Your task to perform on an android device: turn off notifications in google photos Image 0: 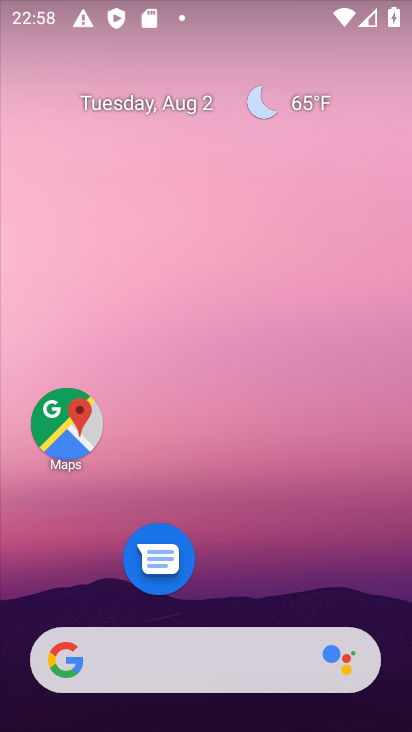
Step 0: drag from (173, 634) to (154, 117)
Your task to perform on an android device: turn off notifications in google photos Image 1: 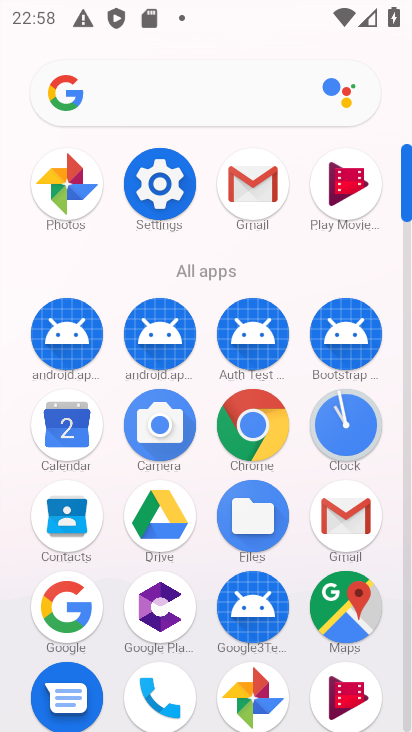
Step 1: click (263, 682)
Your task to perform on an android device: turn off notifications in google photos Image 2: 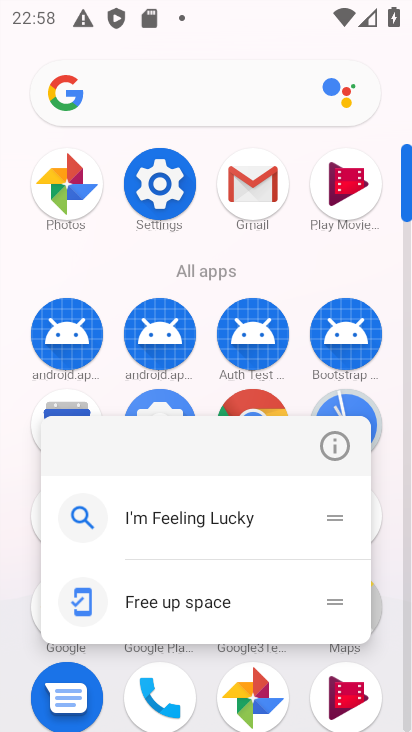
Step 2: click (249, 699)
Your task to perform on an android device: turn off notifications in google photos Image 3: 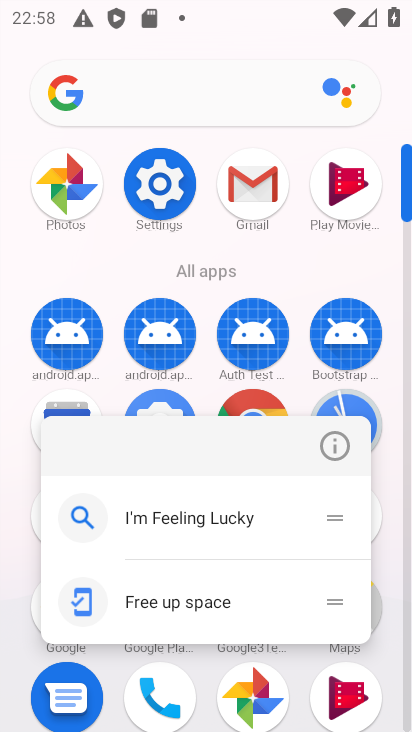
Step 3: click (248, 700)
Your task to perform on an android device: turn off notifications in google photos Image 4: 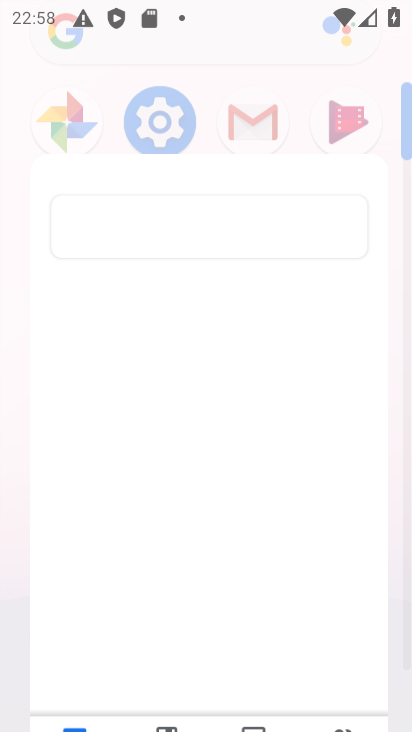
Step 4: click (248, 701)
Your task to perform on an android device: turn off notifications in google photos Image 5: 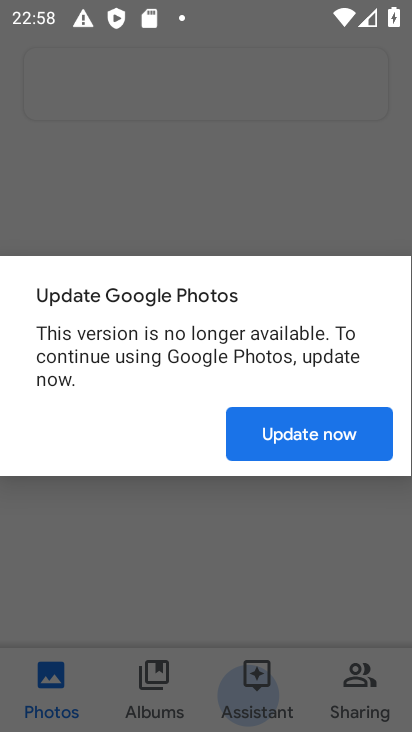
Step 5: click (249, 692)
Your task to perform on an android device: turn off notifications in google photos Image 6: 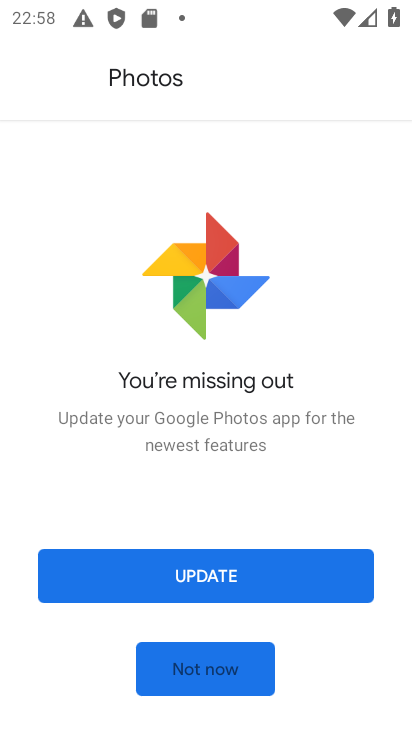
Step 6: click (203, 690)
Your task to perform on an android device: turn off notifications in google photos Image 7: 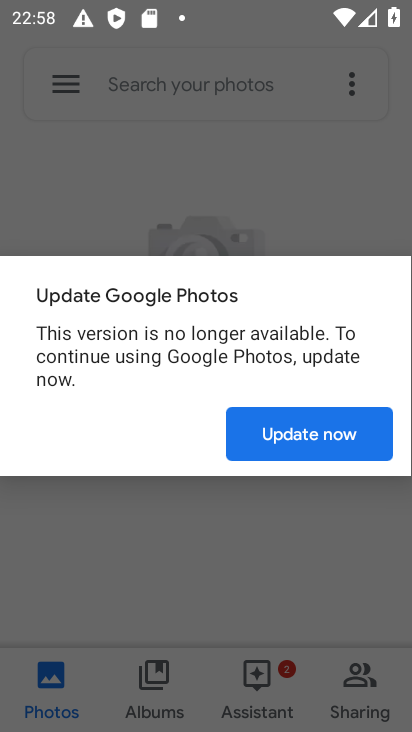
Step 7: click (262, 173)
Your task to perform on an android device: turn off notifications in google photos Image 8: 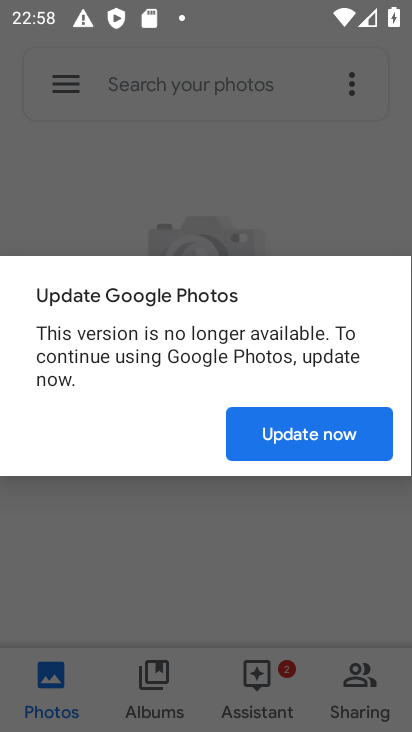
Step 8: click (262, 173)
Your task to perform on an android device: turn off notifications in google photos Image 9: 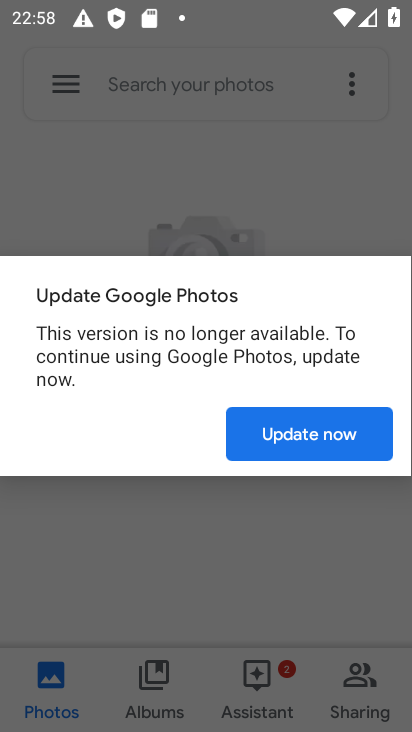
Step 9: click (262, 173)
Your task to perform on an android device: turn off notifications in google photos Image 10: 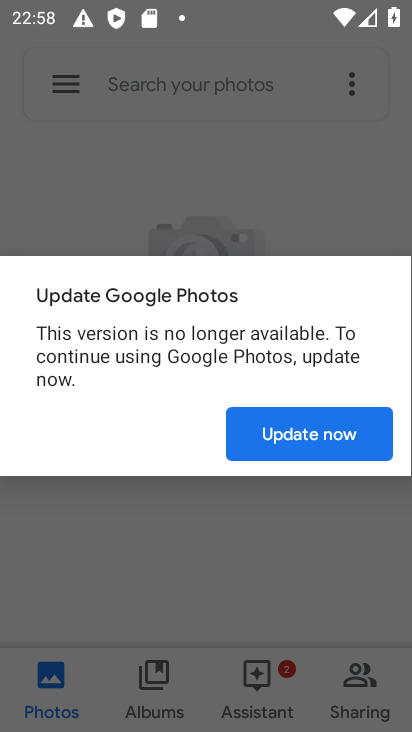
Step 10: click (262, 173)
Your task to perform on an android device: turn off notifications in google photos Image 11: 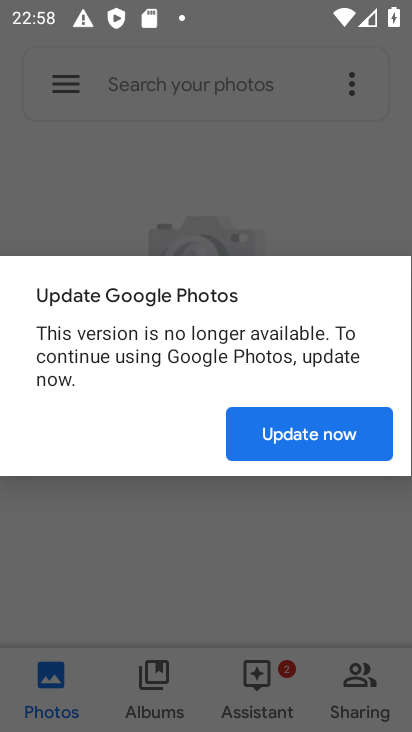
Step 11: click (274, 175)
Your task to perform on an android device: turn off notifications in google photos Image 12: 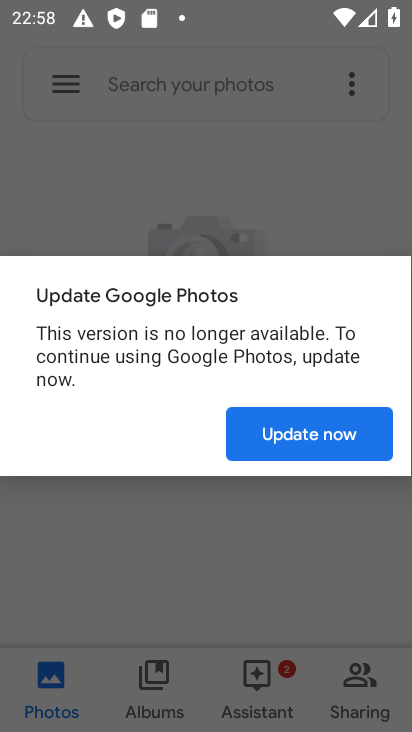
Step 12: click (279, 176)
Your task to perform on an android device: turn off notifications in google photos Image 13: 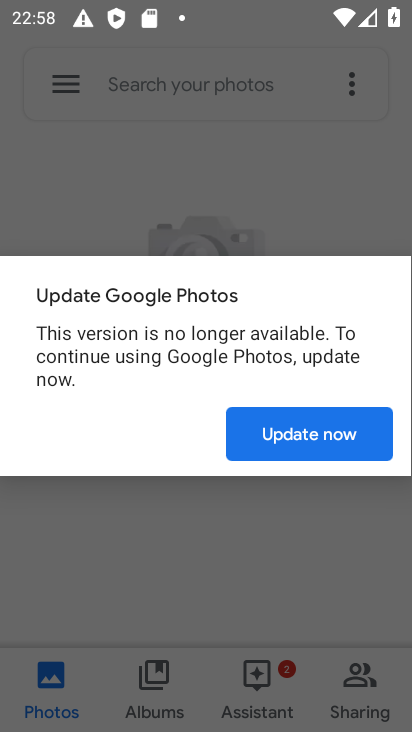
Step 13: click (281, 179)
Your task to perform on an android device: turn off notifications in google photos Image 14: 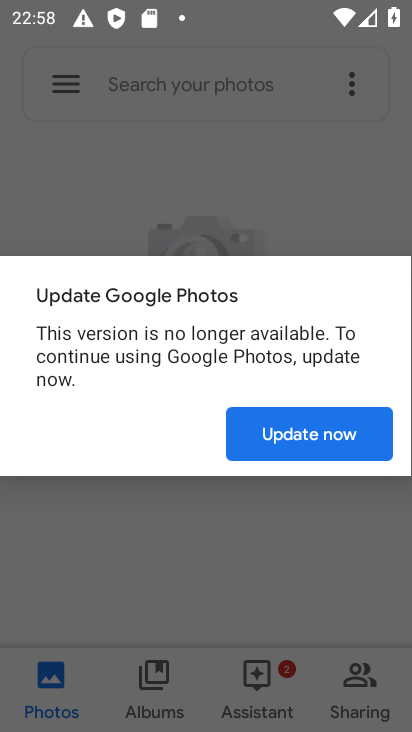
Step 14: click (320, 191)
Your task to perform on an android device: turn off notifications in google photos Image 15: 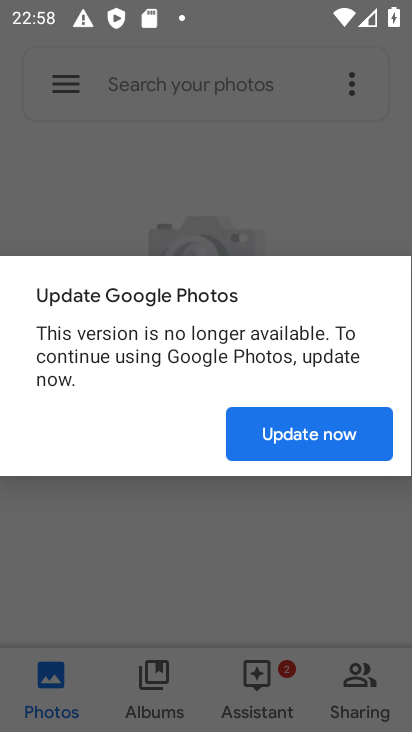
Step 15: click (327, 197)
Your task to perform on an android device: turn off notifications in google photos Image 16: 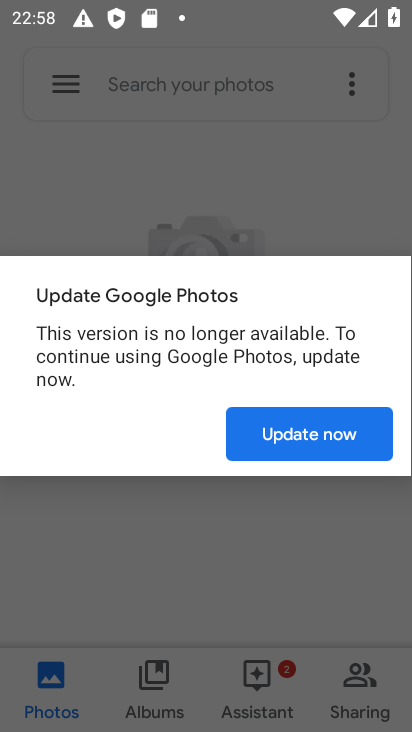
Step 16: click (335, 204)
Your task to perform on an android device: turn off notifications in google photos Image 17: 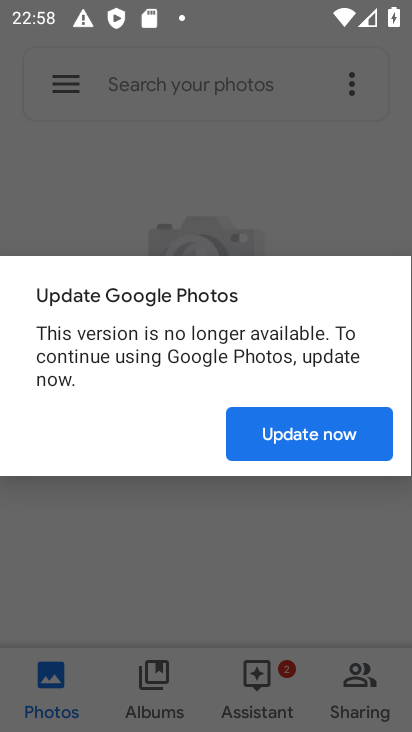
Step 17: click (328, 426)
Your task to perform on an android device: turn off notifications in google photos Image 18: 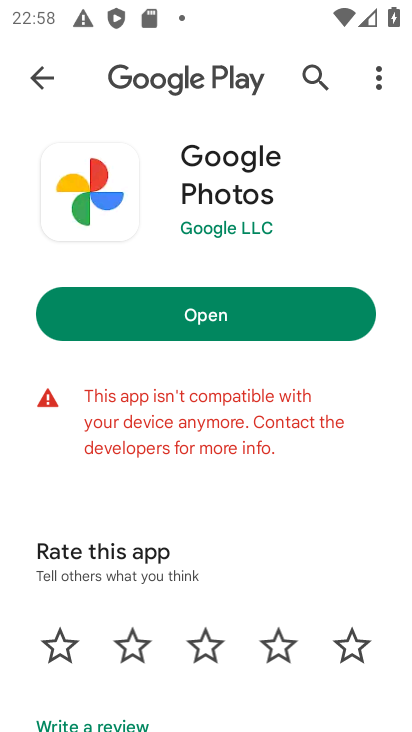
Step 18: click (172, 314)
Your task to perform on an android device: turn off notifications in google photos Image 19: 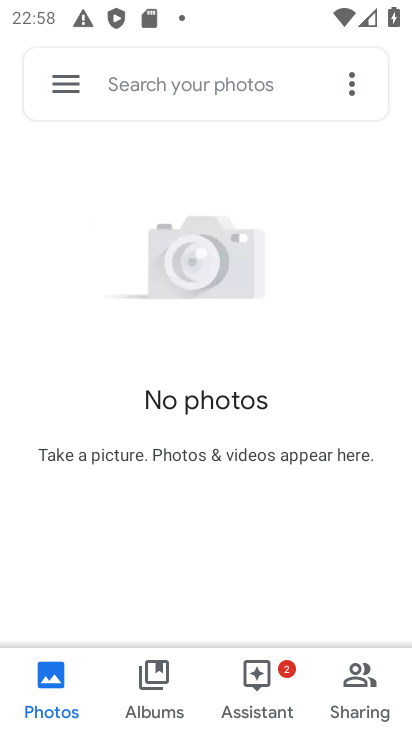
Step 19: click (72, 83)
Your task to perform on an android device: turn off notifications in google photos Image 20: 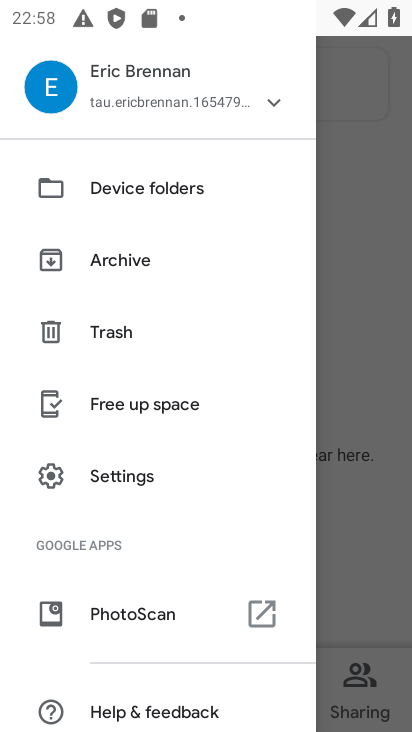
Step 20: click (120, 477)
Your task to perform on an android device: turn off notifications in google photos Image 21: 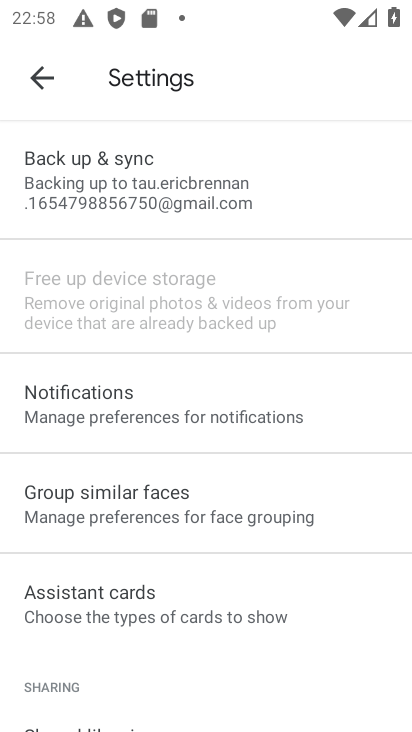
Step 21: click (80, 388)
Your task to perform on an android device: turn off notifications in google photos Image 22: 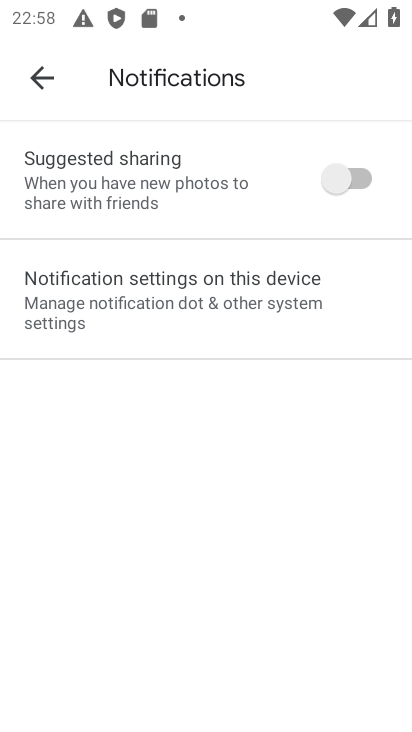
Step 22: click (299, 282)
Your task to perform on an android device: turn off notifications in google photos Image 23: 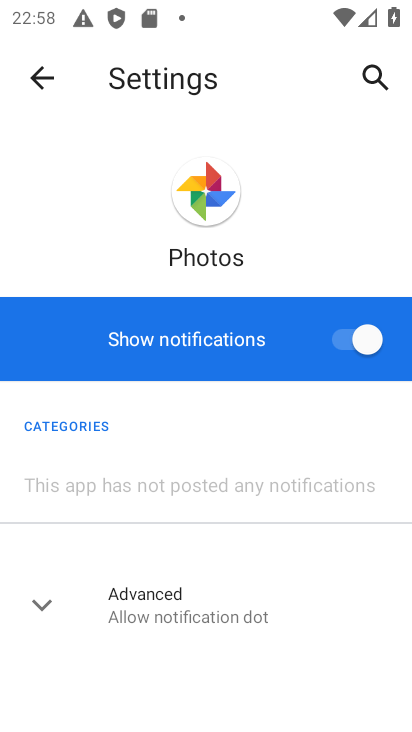
Step 23: click (367, 345)
Your task to perform on an android device: turn off notifications in google photos Image 24: 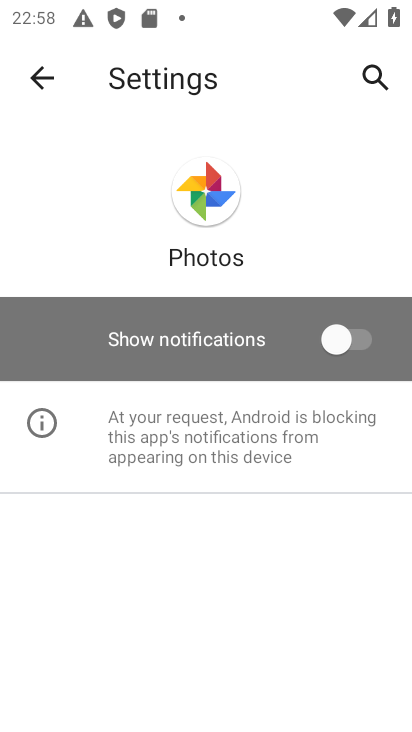
Step 24: task complete